Your task to perform on an android device: Open calendar and show me the second week of next month Image 0: 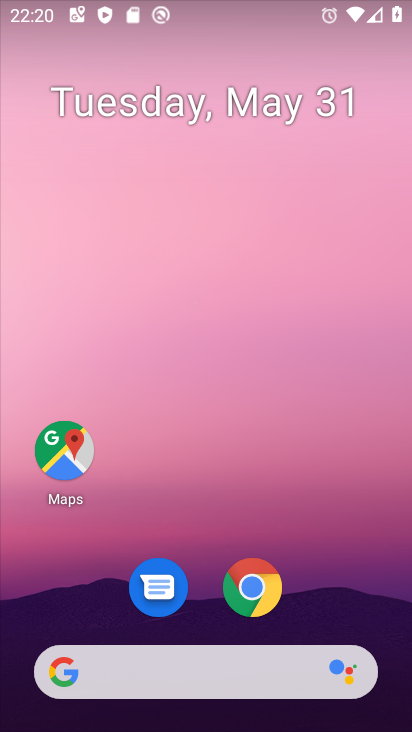
Step 0: drag from (356, 599) to (351, 203)
Your task to perform on an android device: Open calendar and show me the second week of next month Image 1: 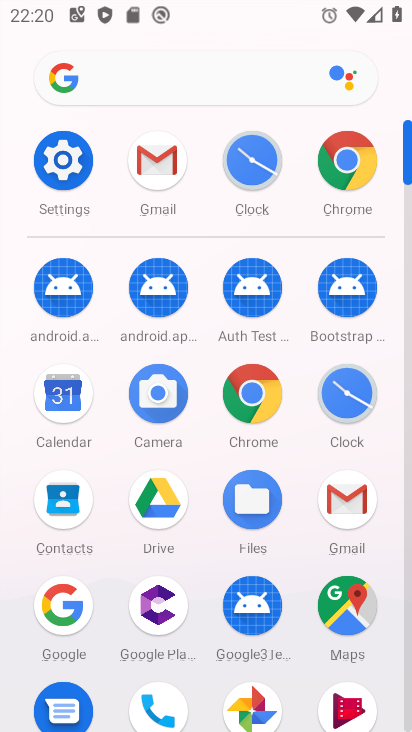
Step 1: click (74, 421)
Your task to perform on an android device: Open calendar and show me the second week of next month Image 2: 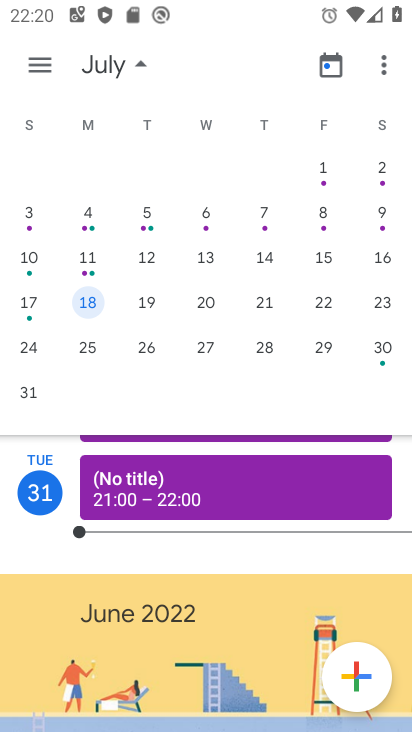
Step 2: click (151, 249)
Your task to perform on an android device: Open calendar and show me the second week of next month Image 3: 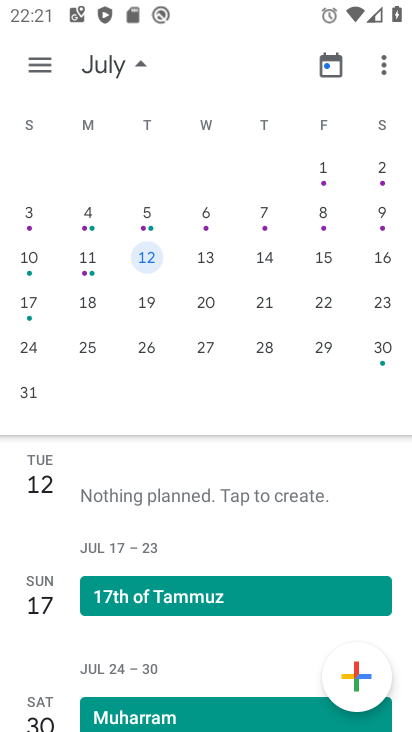
Step 3: task complete